Your task to perform on an android device: Search for Mexican restaurants on Maps Image 0: 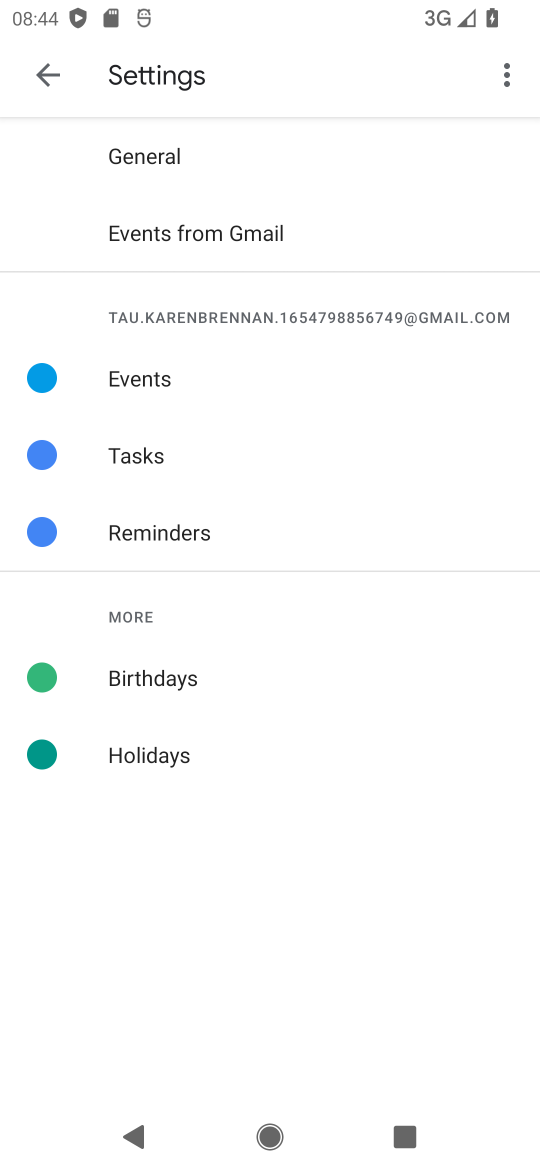
Step 0: press home button
Your task to perform on an android device: Search for Mexican restaurants on Maps Image 1: 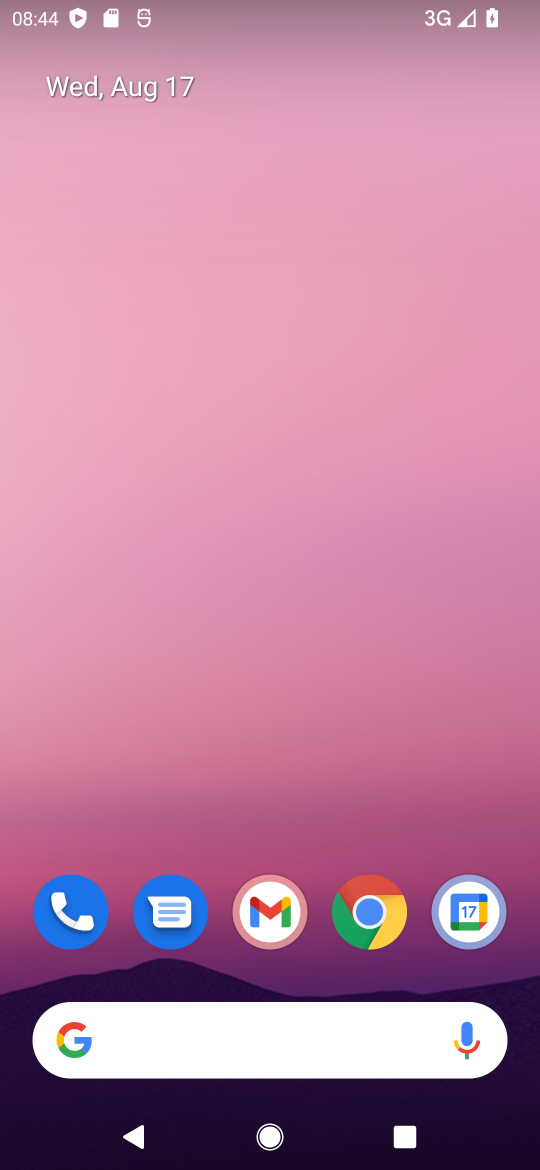
Step 1: drag from (241, 1011) to (269, 239)
Your task to perform on an android device: Search for Mexican restaurants on Maps Image 2: 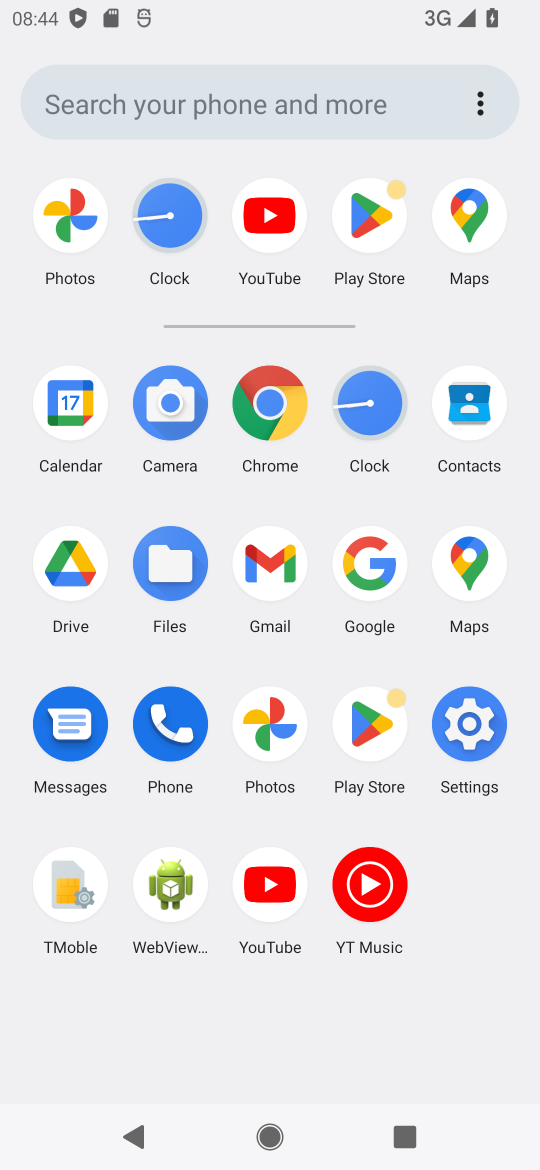
Step 2: click (463, 225)
Your task to perform on an android device: Search for Mexican restaurants on Maps Image 3: 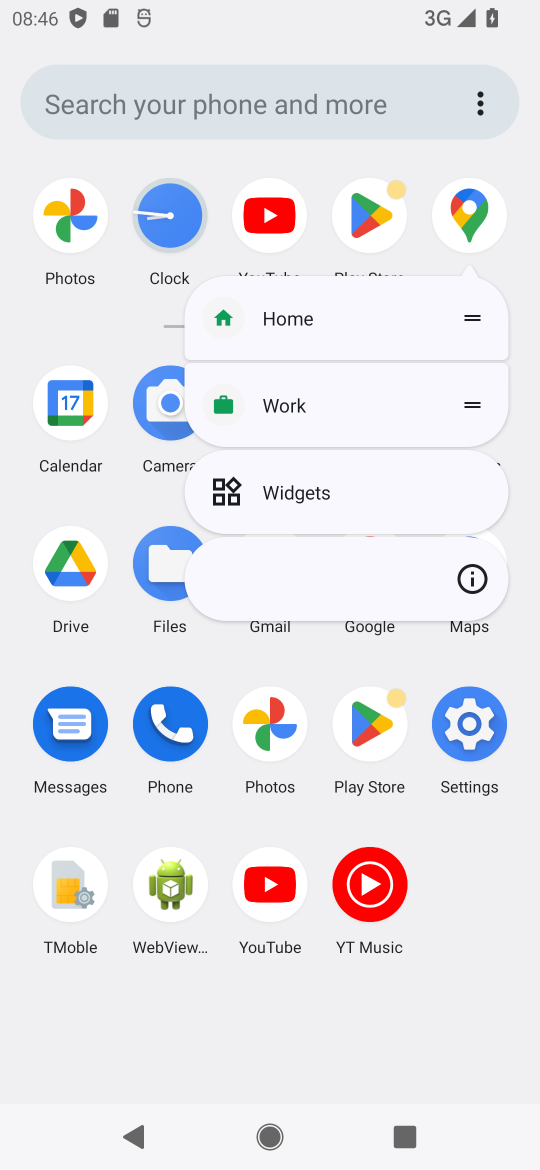
Step 3: click (183, 1002)
Your task to perform on an android device: Search for Mexican restaurants on Maps Image 4: 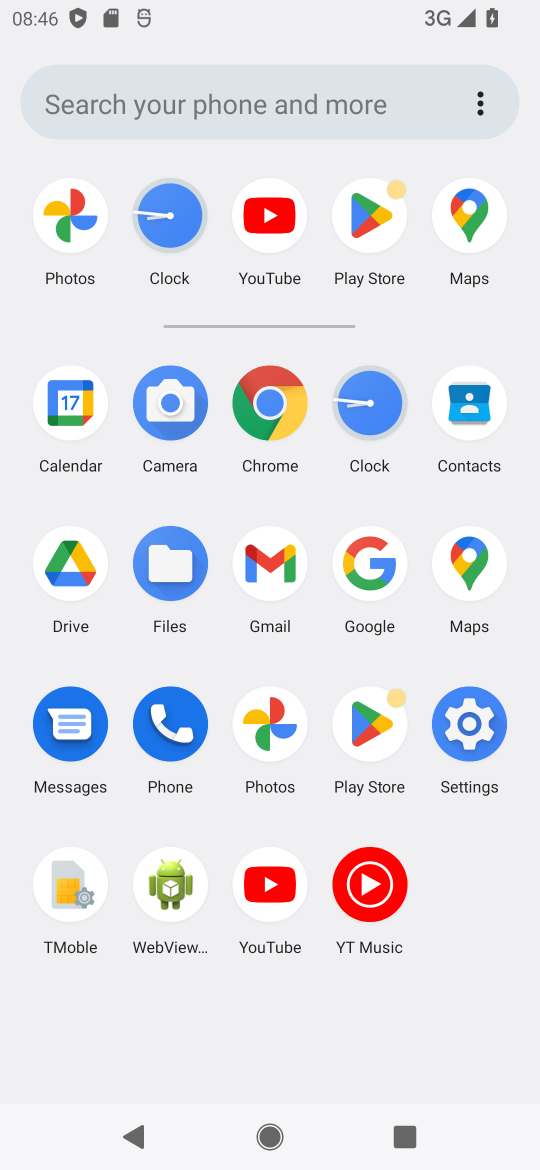
Step 4: click (476, 567)
Your task to perform on an android device: Search for Mexican restaurants on Maps Image 5: 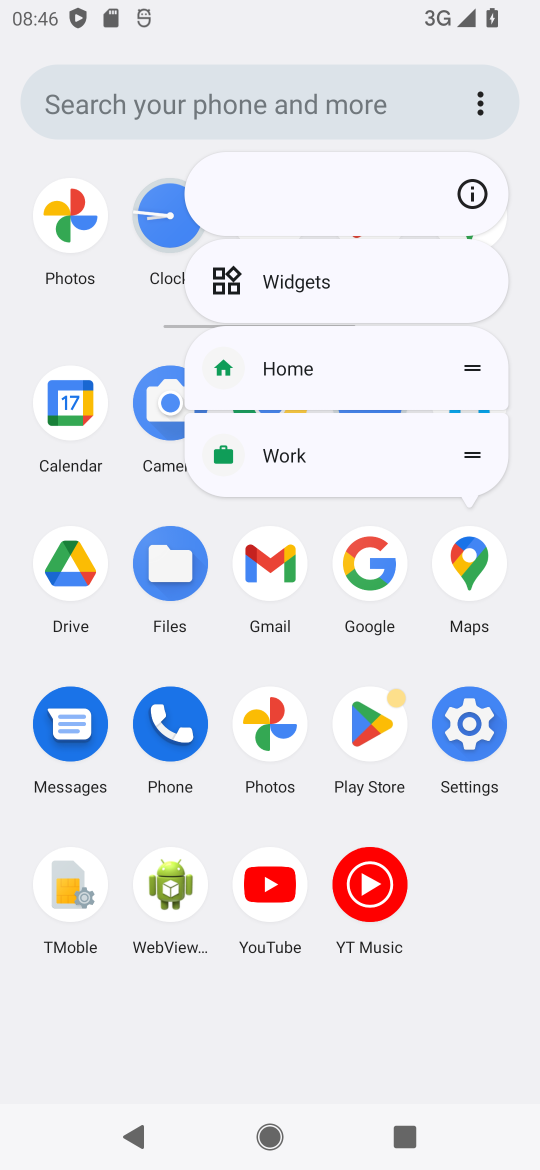
Step 5: click (471, 563)
Your task to perform on an android device: Search for Mexican restaurants on Maps Image 6: 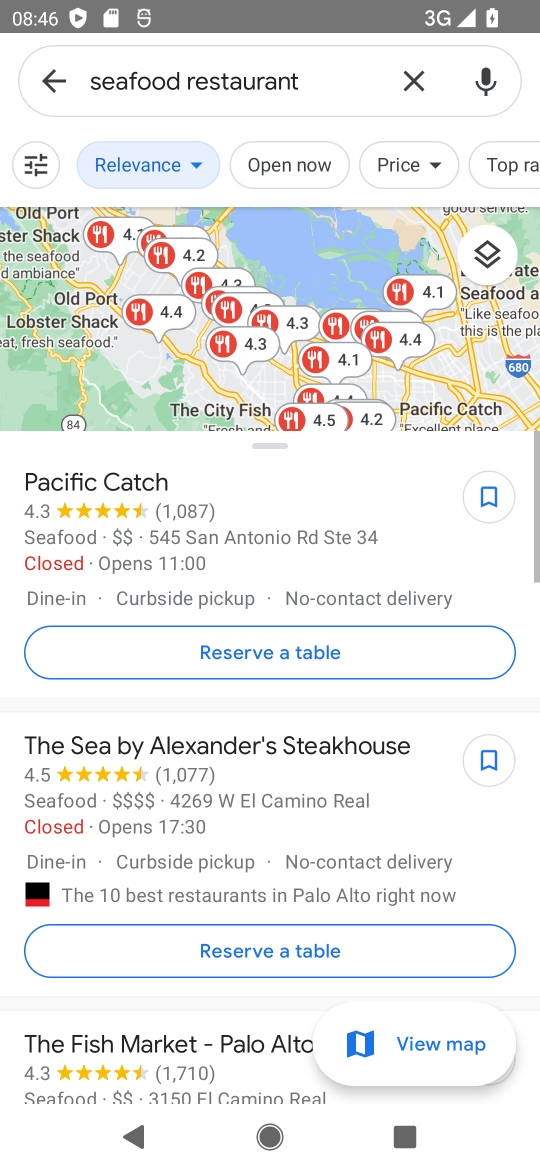
Step 6: click (412, 84)
Your task to perform on an android device: Search for Mexican restaurants on Maps Image 7: 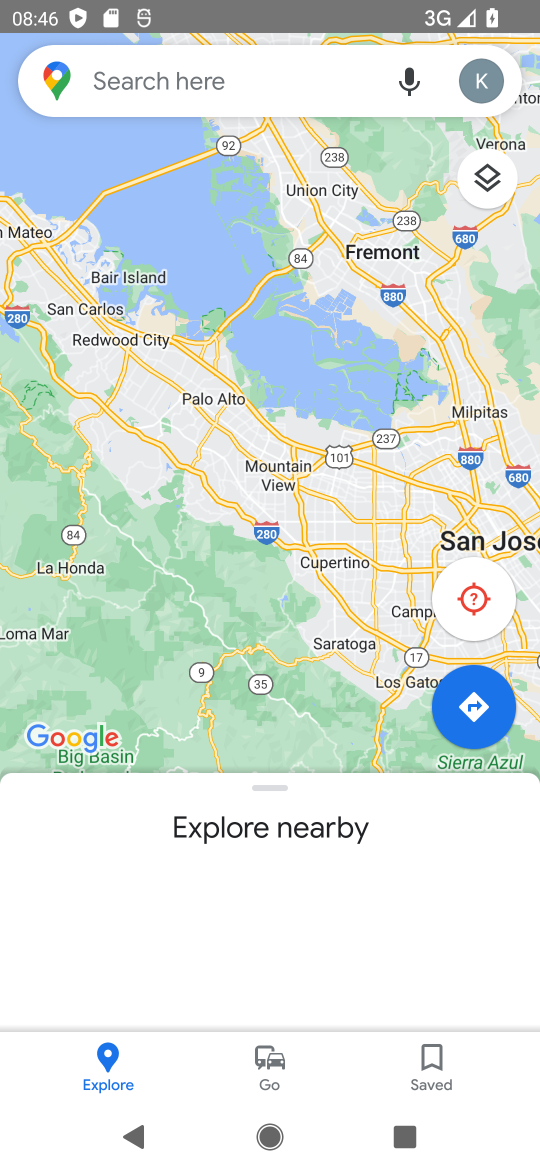
Step 7: click (224, 83)
Your task to perform on an android device: Search for Mexican restaurants on Maps Image 8: 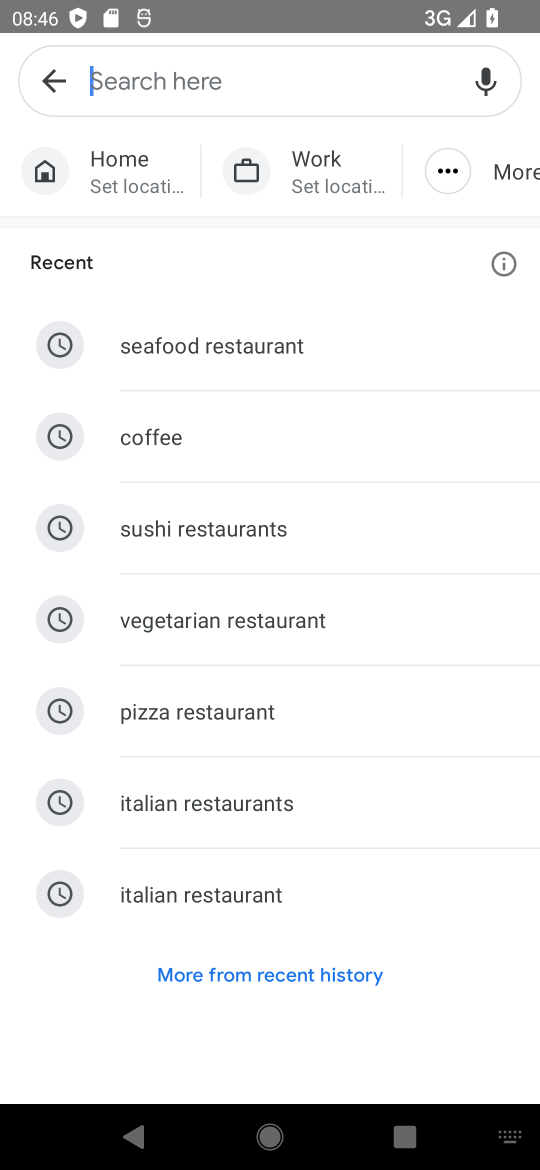
Step 8: click (203, 964)
Your task to perform on an android device: Search for Mexican restaurants on Maps Image 9: 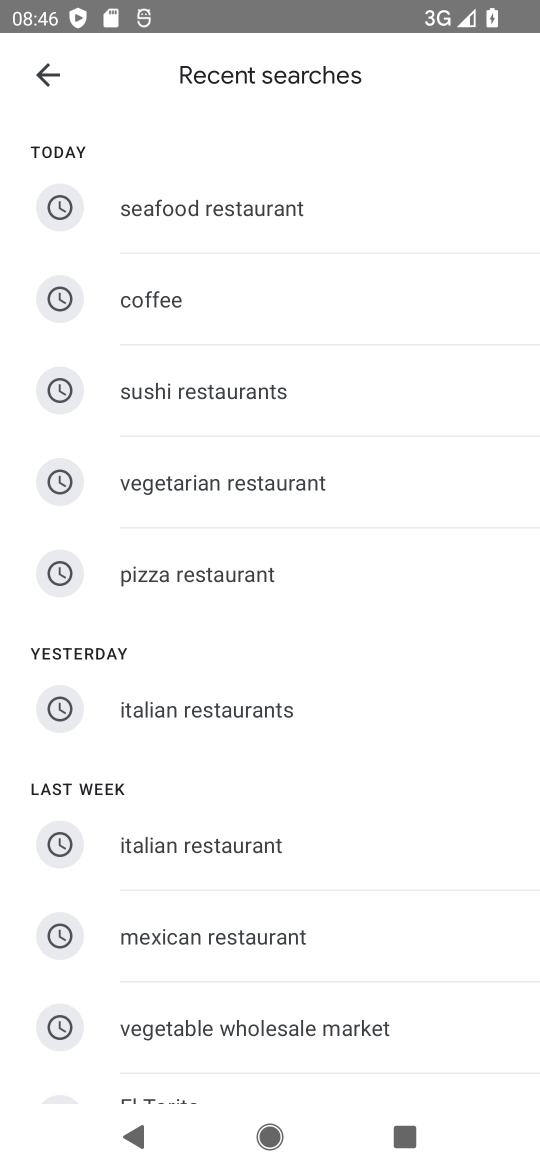
Step 9: click (153, 923)
Your task to perform on an android device: Search for Mexican restaurants on Maps Image 10: 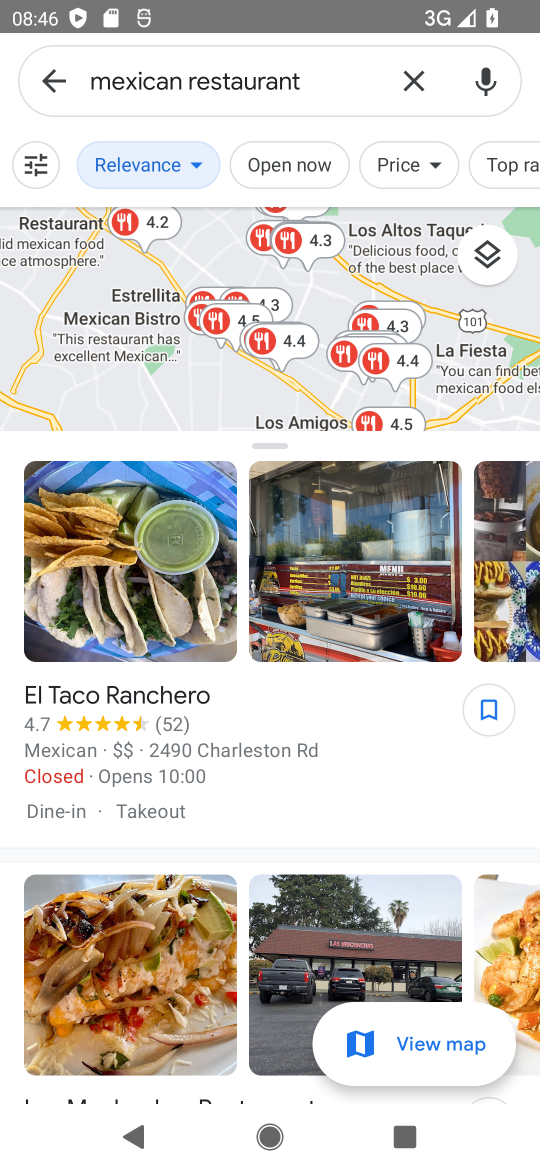
Step 10: task complete